Your task to perform on an android device: Go to Reddit.com Image 0: 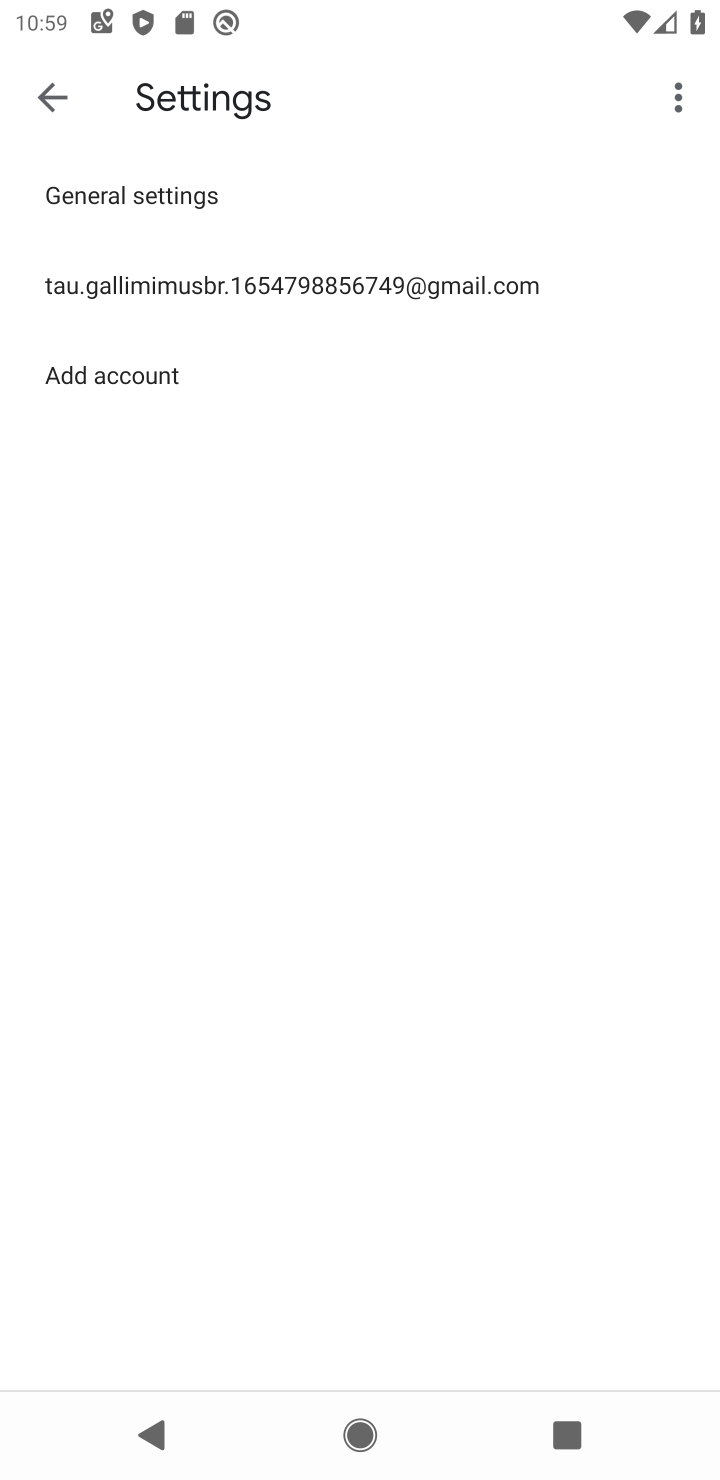
Step 0: press home button
Your task to perform on an android device: Go to Reddit.com Image 1: 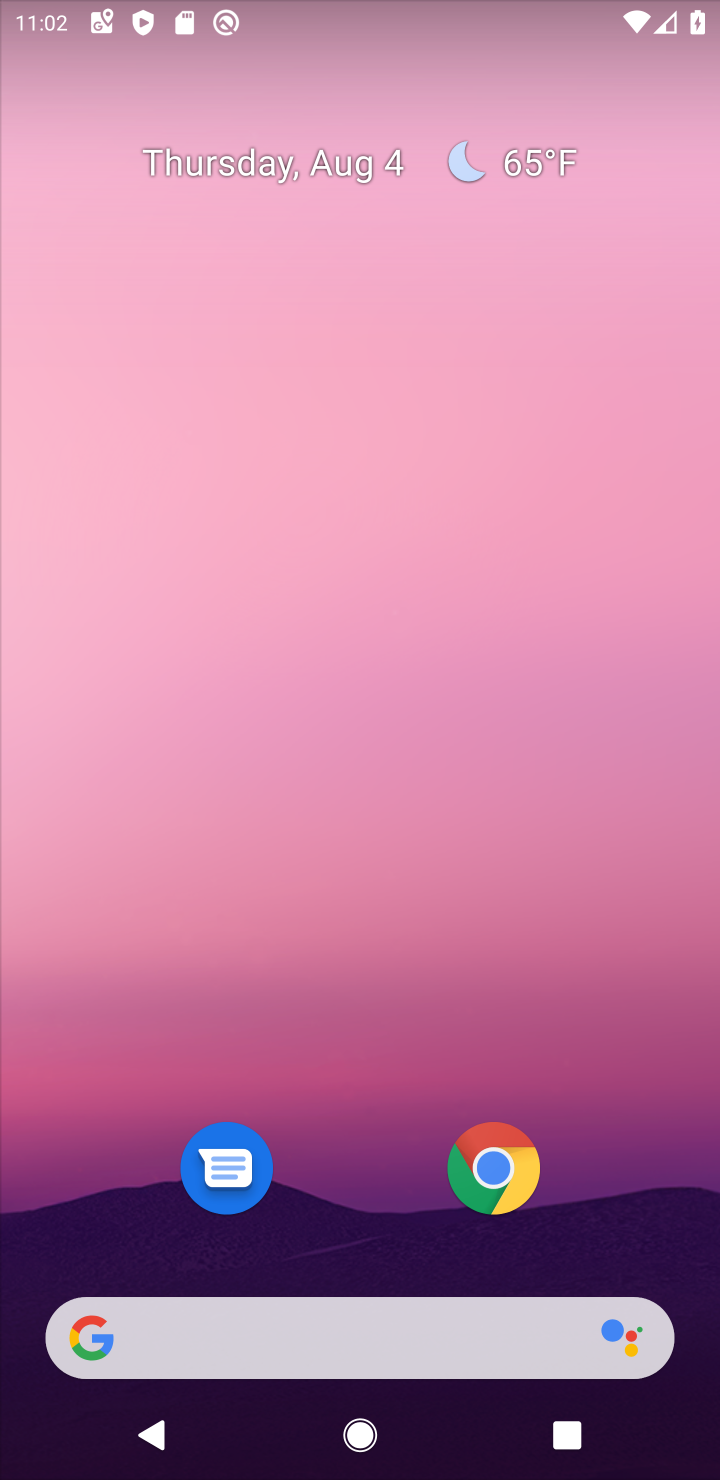
Step 1: drag from (635, 1233) to (484, 39)
Your task to perform on an android device: Go to Reddit.com Image 2: 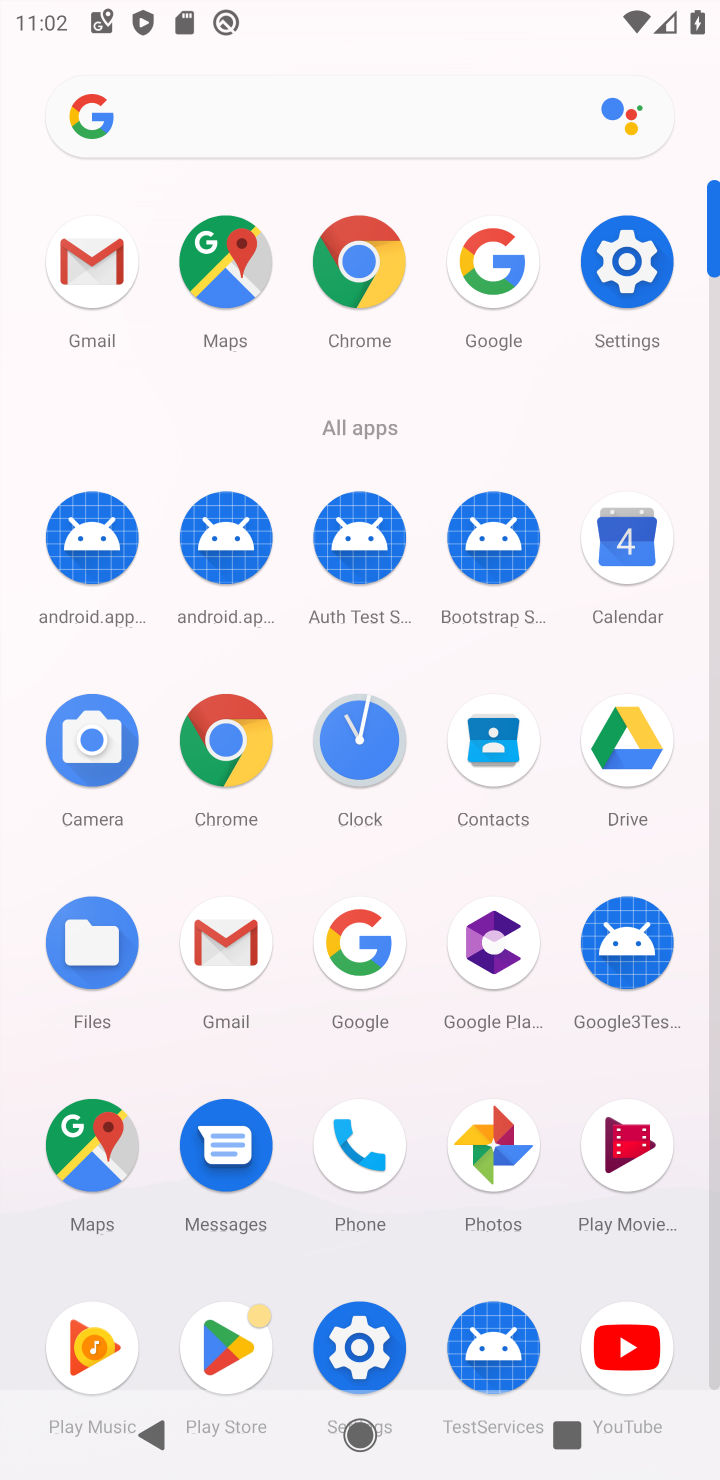
Step 2: click (501, 232)
Your task to perform on an android device: Go to Reddit.com Image 3: 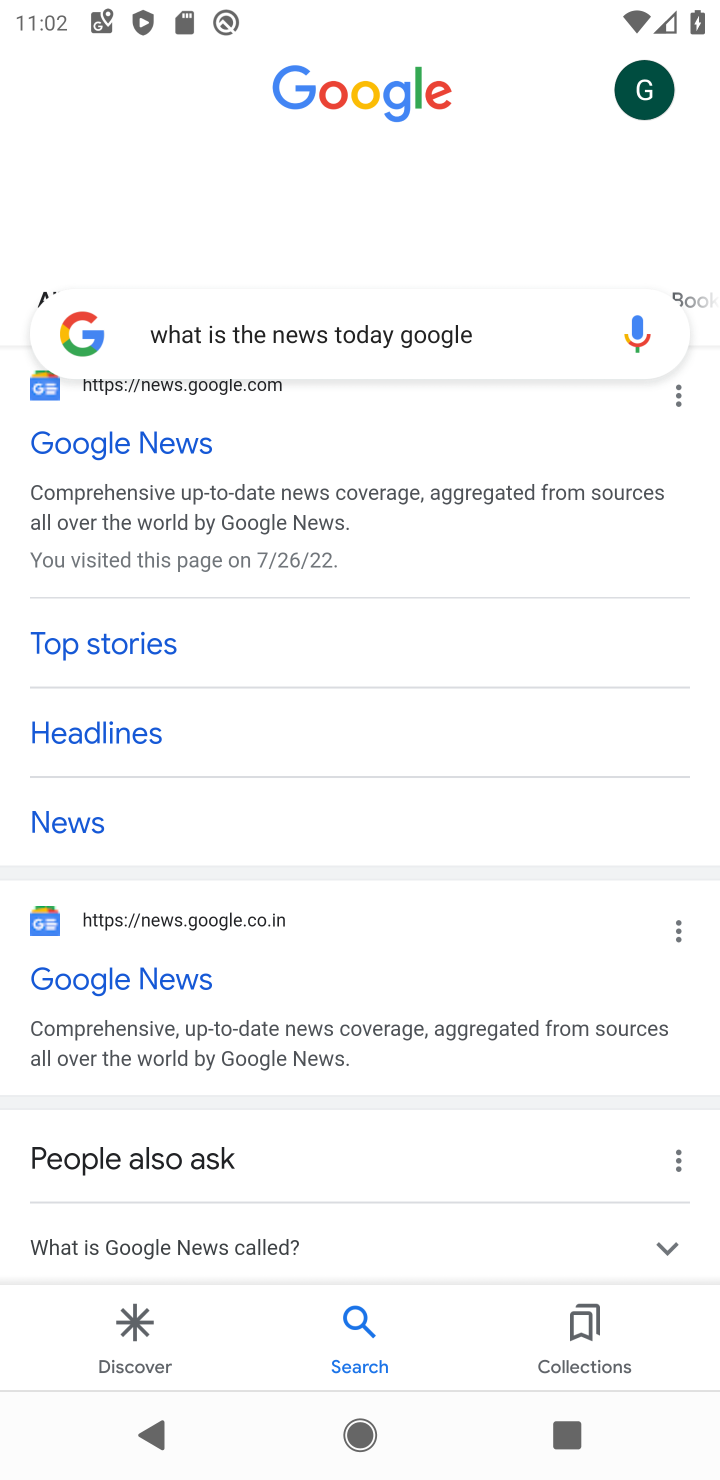
Step 3: press back button
Your task to perform on an android device: Go to Reddit.com Image 4: 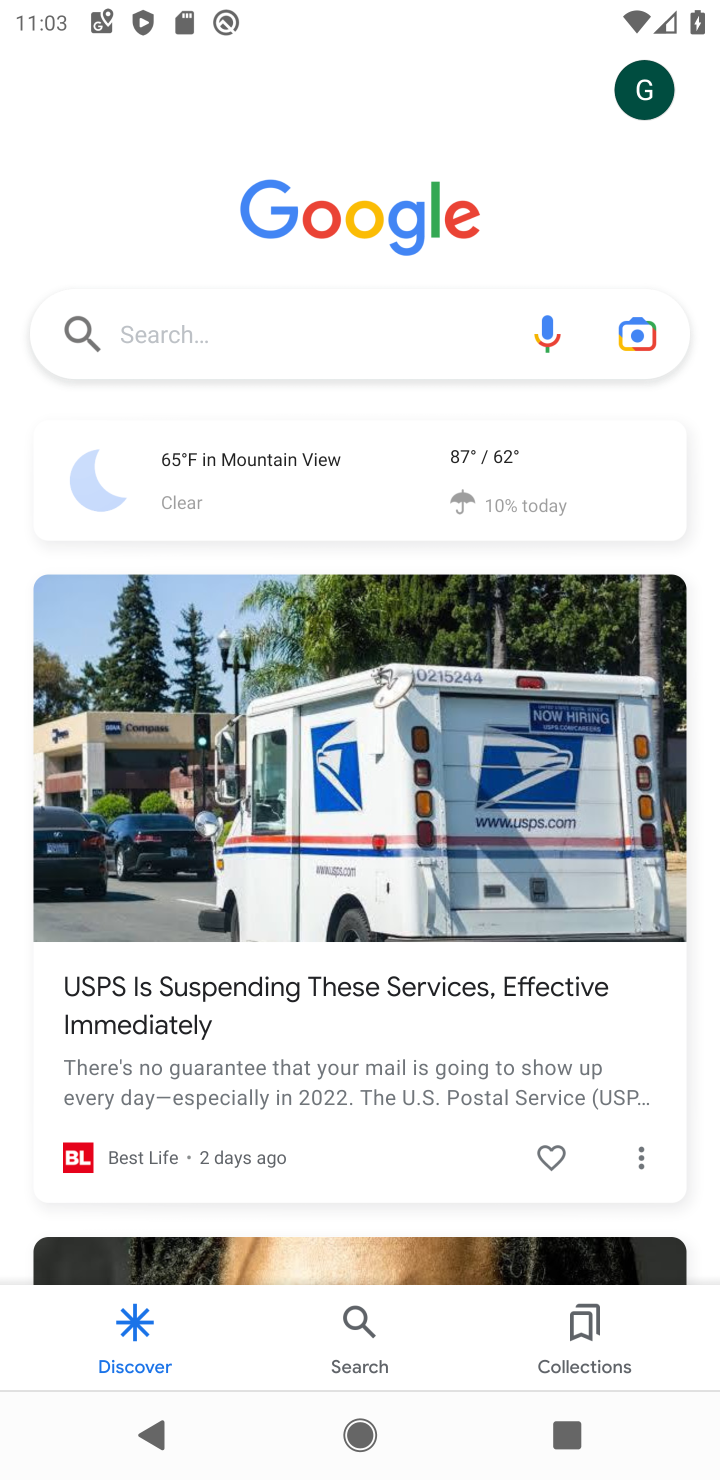
Step 4: click (244, 324)
Your task to perform on an android device: Go to Reddit.com Image 5: 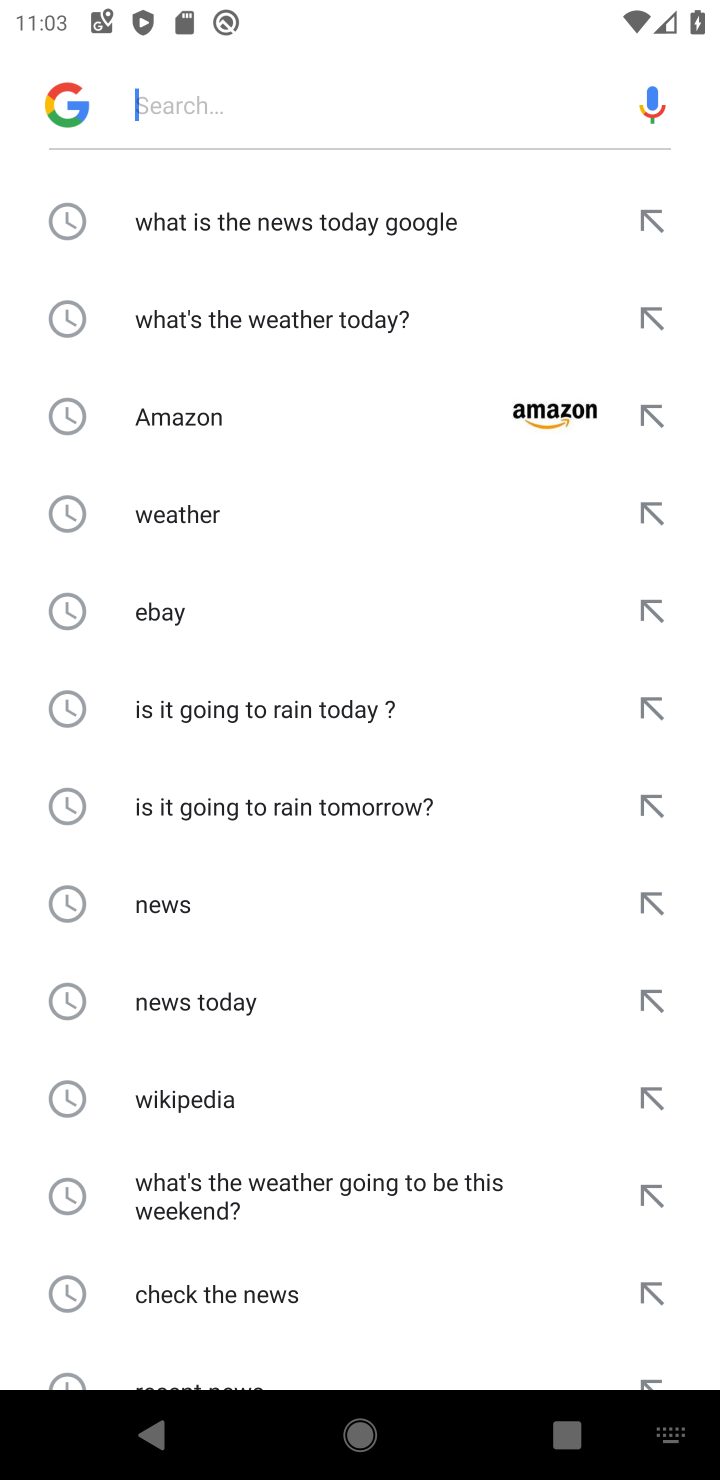
Step 5: type "Reddit.com"
Your task to perform on an android device: Go to Reddit.com Image 6: 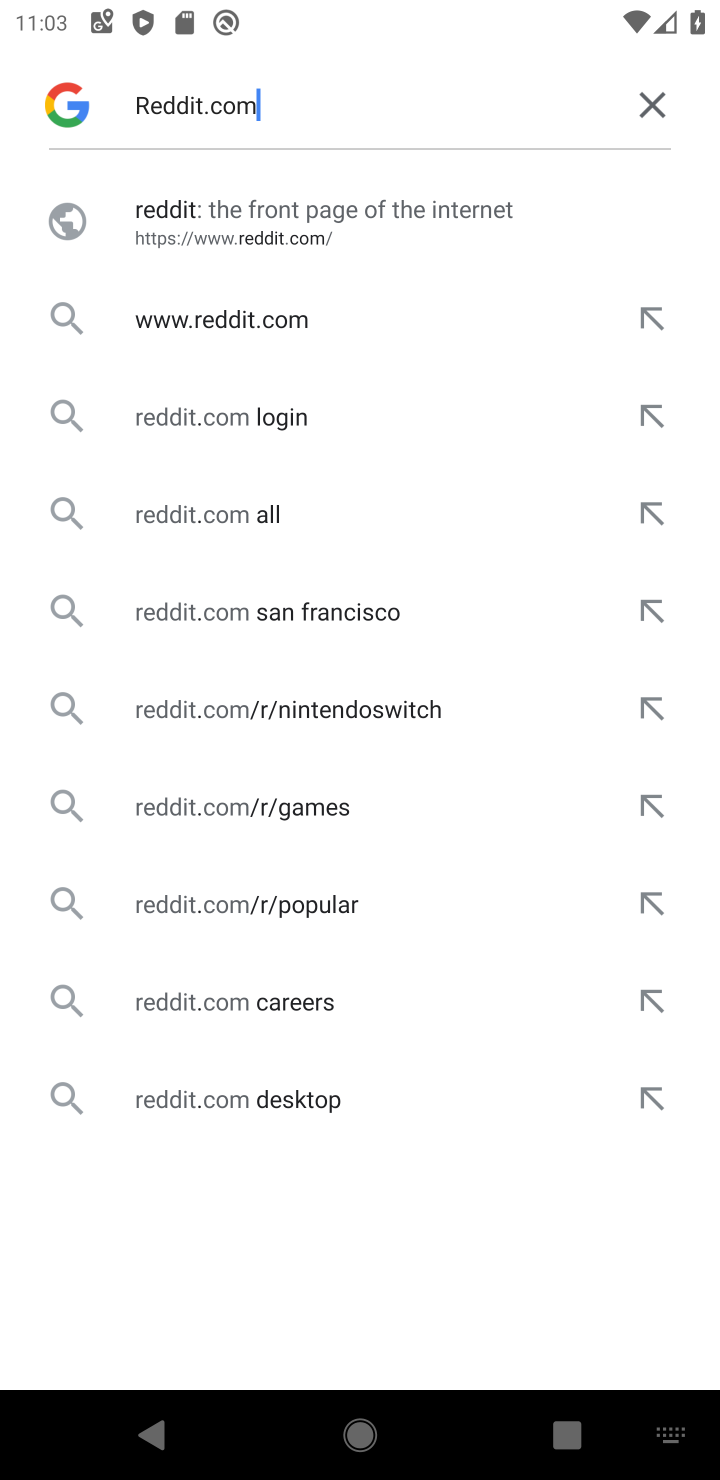
Step 6: click (180, 237)
Your task to perform on an android device: Go to Reddit.com Image 7: 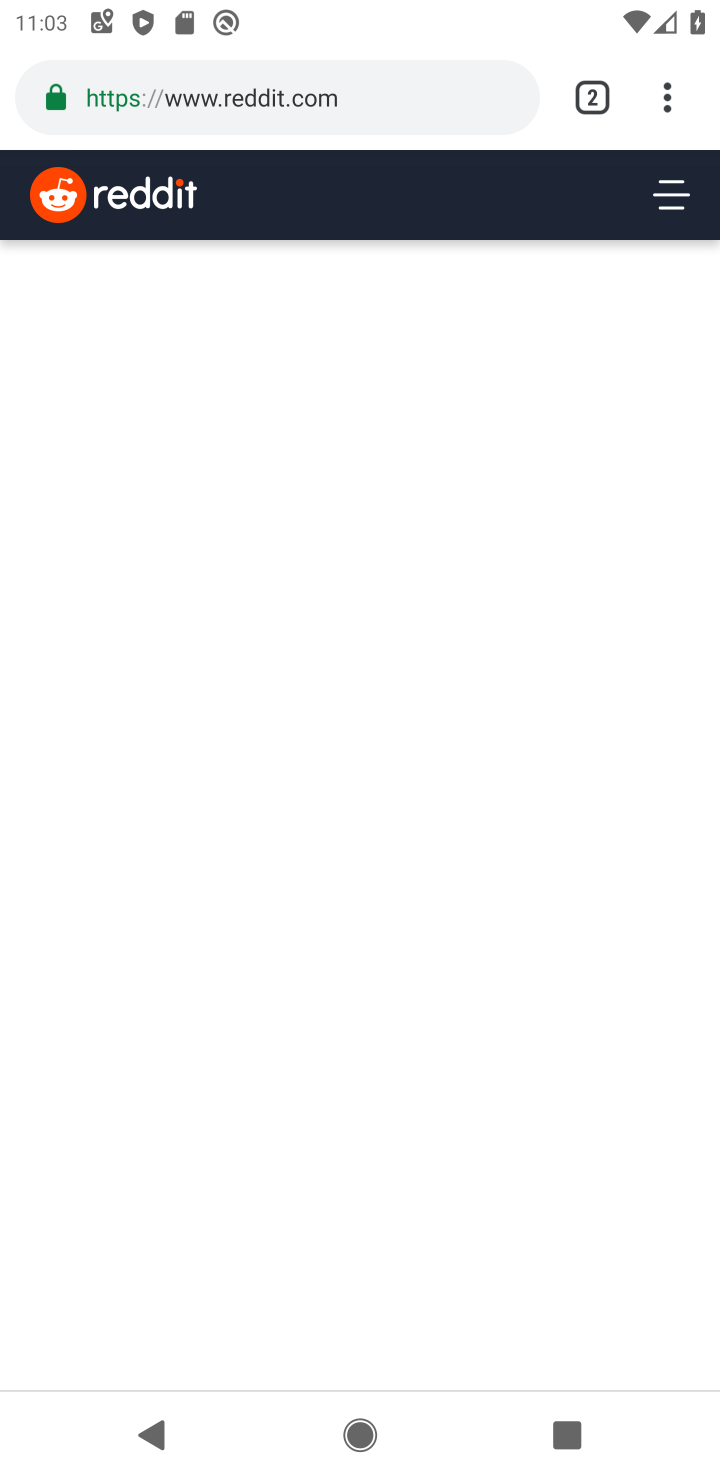
Step 7: task complete